Your task to perform on an android device: remove spam from my inbox in the gmail app Image 0: 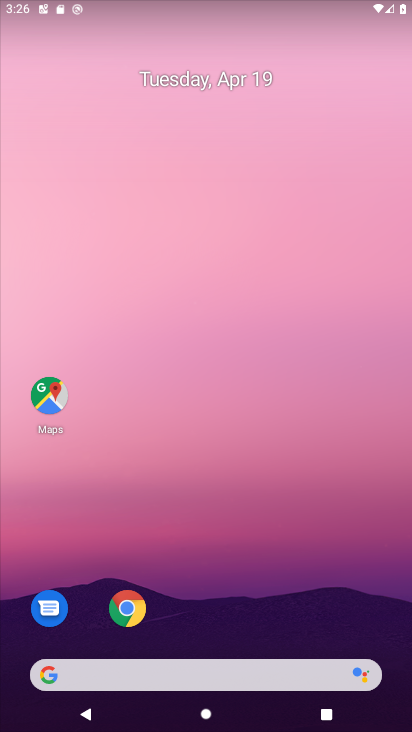
Step 0: drag from (269, 621) to (246, 95)
Your task to perform on an android device: remove spam from my inbox in the gmail app Image 1: 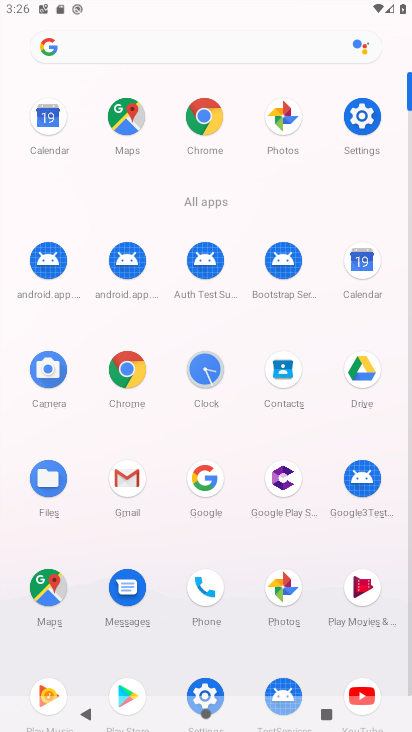
Step 1: click (132, 484)
Your task to perform on an android device: remove spam from my inbox in the gmail app Image 2: 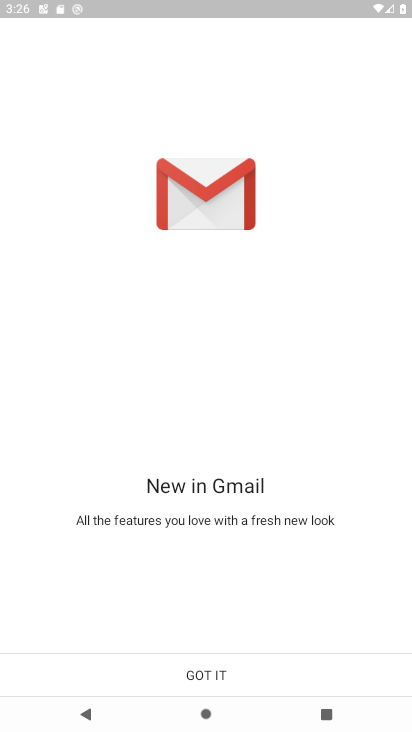
Step 2: click (219, 670)
Your task to perform on an android device: remove spam from my inbox in the gmail app Image 3: 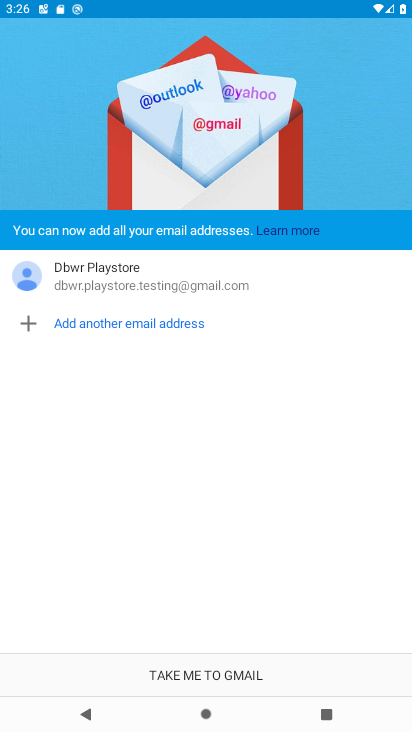
Step 3: click (229, 667)
Your task to perform on an android device: remove spam from my inbox in the gmail app Image 4: 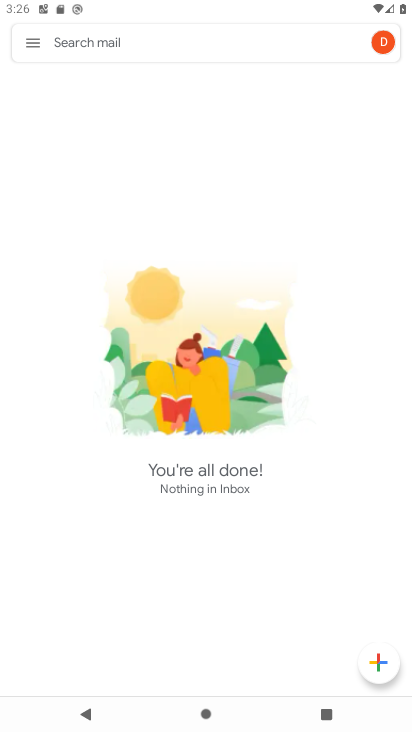
Step 4: click (26, 41)
Your task to perform on an android device: remove spam from my inbox in the gmail app Image 5: 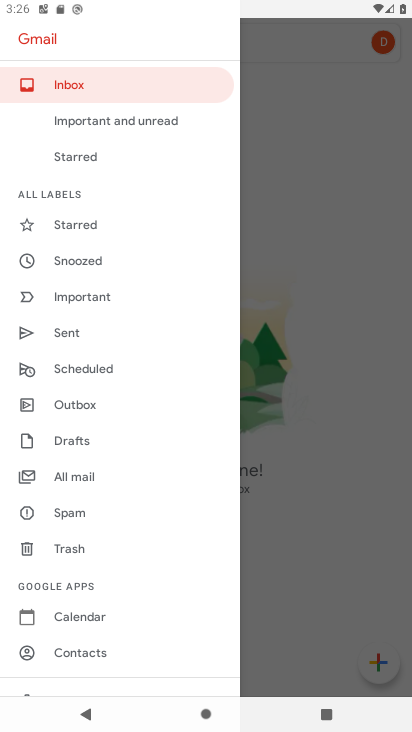
Step 5: click (74, 509)
Your task to perform on an android device: remove spam from my inbox in the gmail app Image 6: 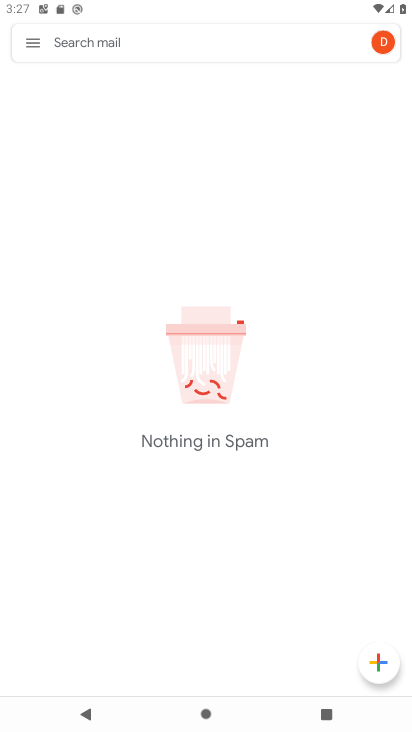
Step 6: task complete